Your task to perform on an android device: Open eBay Image 0: 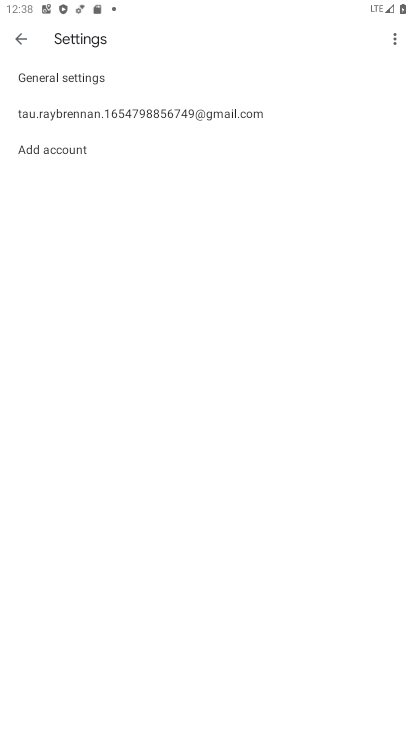
Step 0: press home button
Your task to perform on an android device: Open eBay Image 1: 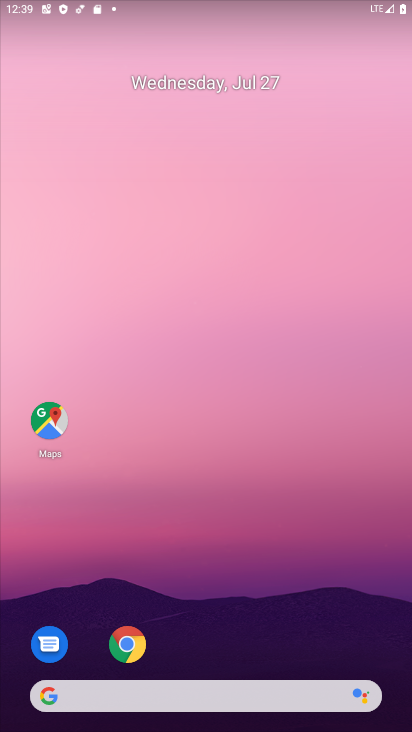
Step 1: click (135, 653)
Your task to perform on an android device: Open eBay Image 2: 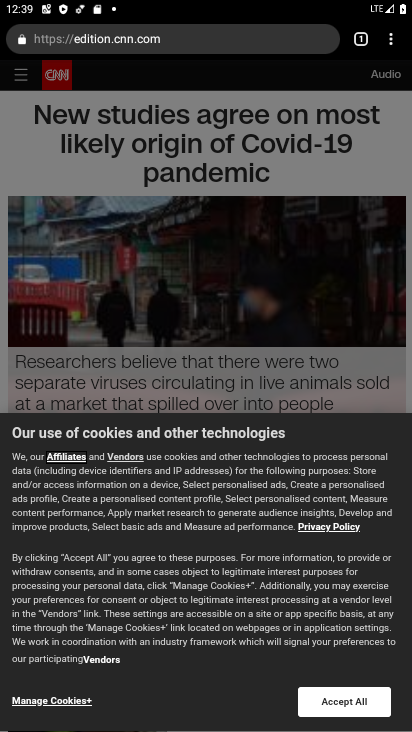
Step 2: click (175, 44)
Your task to perform on an android device: Open eBay Image 3: 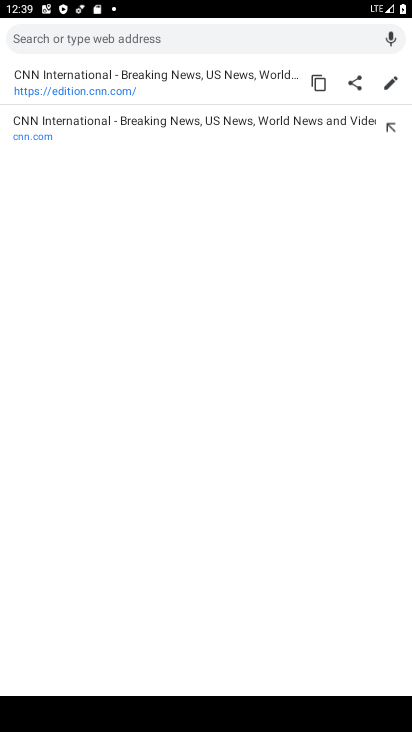
Step 3: type "eBay"
Your task to perform on an android device: Open eBay Image 4: 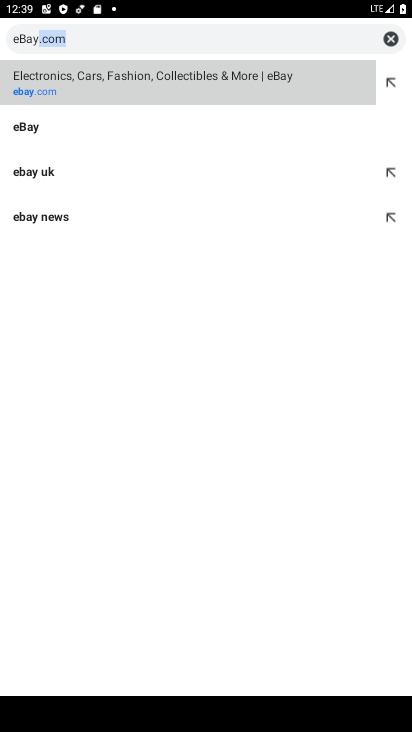
Step 4: click (47, 86)
Your task to perform on an android device: Open eBay Image 5: 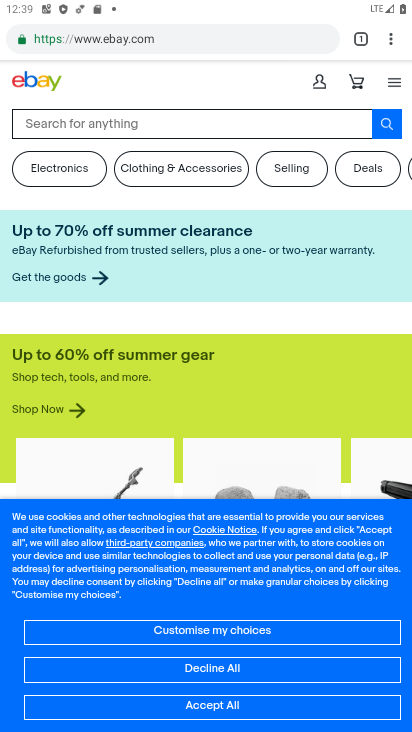
Step 5: task complete